Your task to perform on an android device: Go to location settings Image 0: 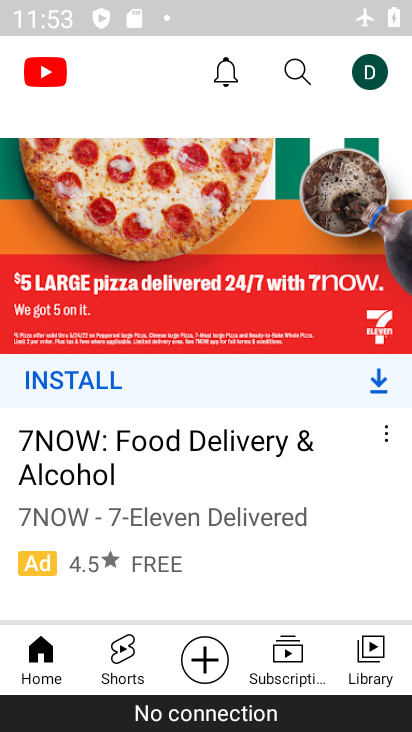
Step 0: press back button
Your task to perform on an android device: Go to location settings Image 1: 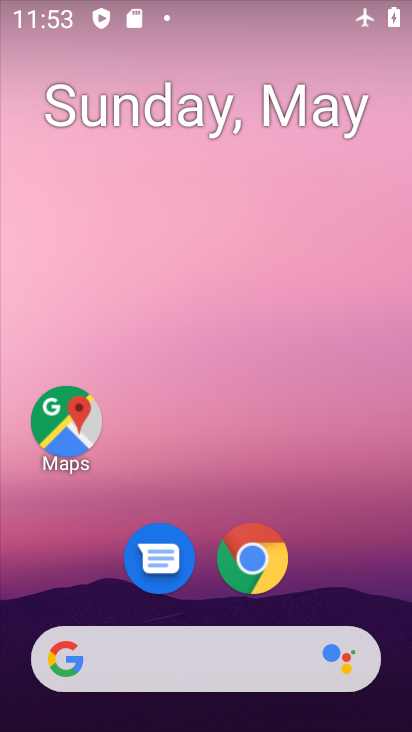
Step 1: drag from (346, 573) to (351, 149)
Your task to perform on an android device: Go to location settings Image 2: 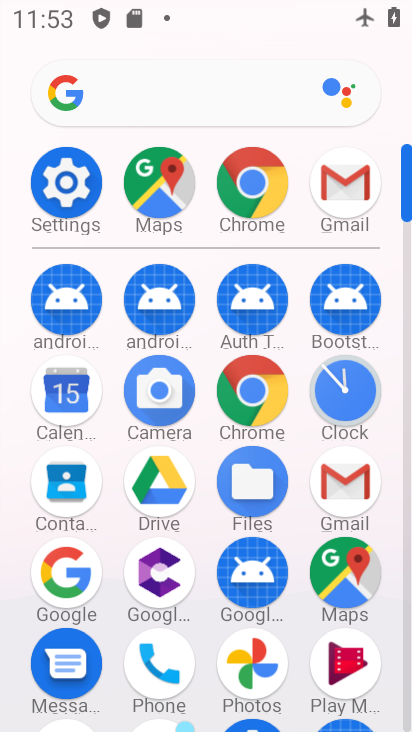
Step 2: click (77, 193)
Your task to perform on an android device: Go to location settings Image 3: 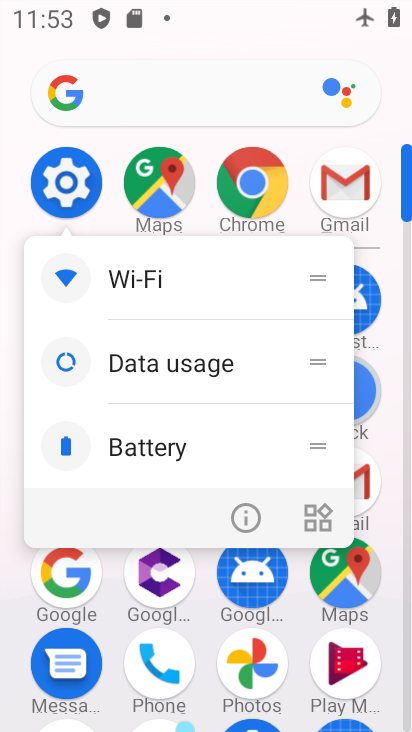
Step 3: click (77, 193)
Your task to perform on an android device: Go to location settings Image 4: 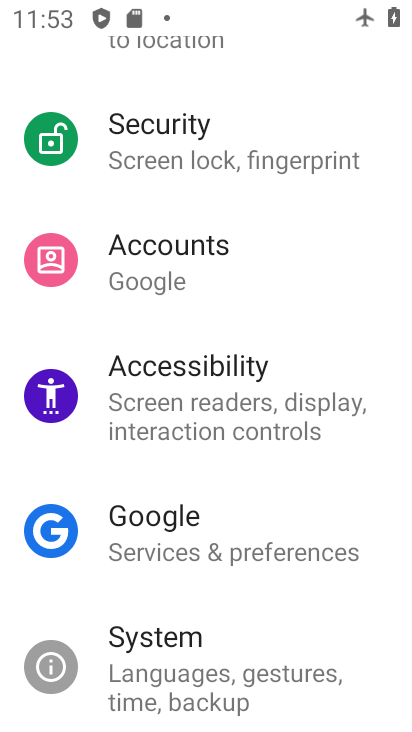
Step 4: drag from (366, 612) to (383, 354)
Your task to perform on an android device: Go to location settings Image 5: 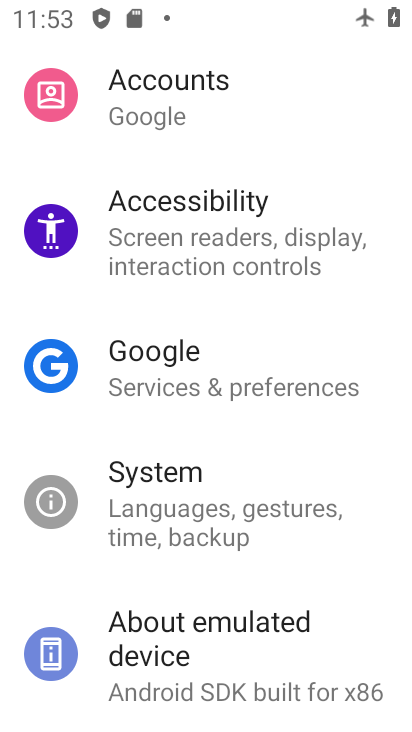
Step 5: drag from (375, 294) to (370, 459)
Your task to perform on an android device: Go to location settings Image 6: 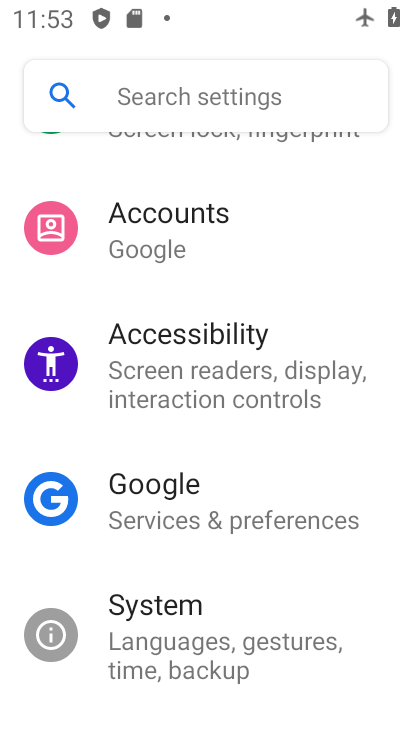
Step 6: drag from (369, 284) to (373, 433)
Your task to perform on an android device: Go to location settings Image 7: 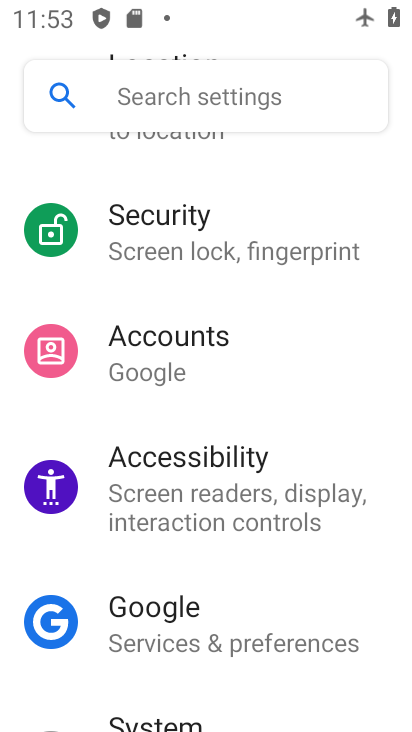
Step 7: drag from (375, 285) to (376, 414)
Your task to perform on an android device: Go to location settings Image 8: 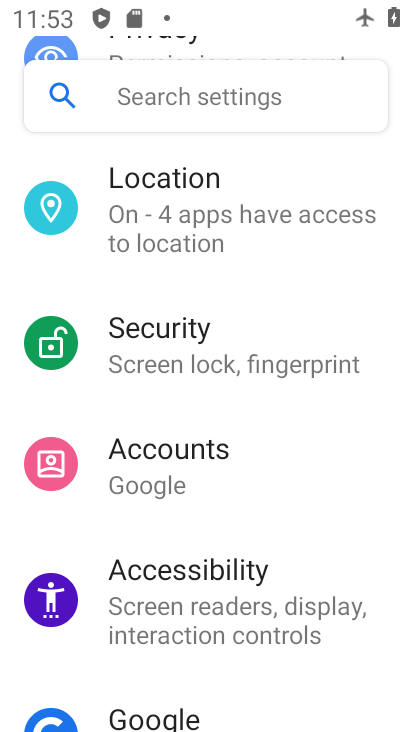
Step 8: drag from (373, 284) to (365, 411)
Your task to perform on an android device: Go to location settings Image 9: 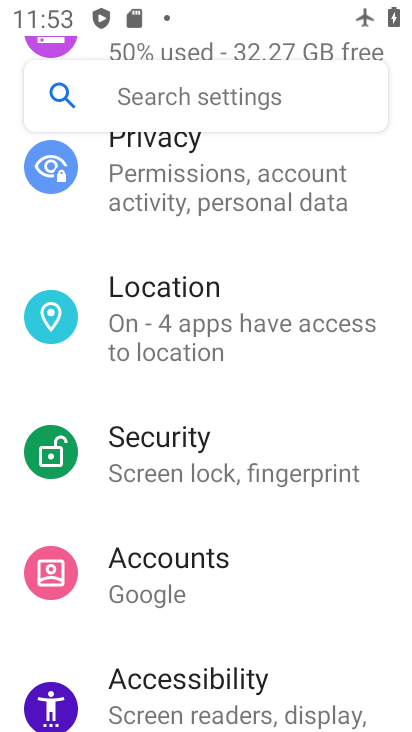
Step 9: click (303, 331)
Your task to perform on an android device: Go to location settings Image 10: 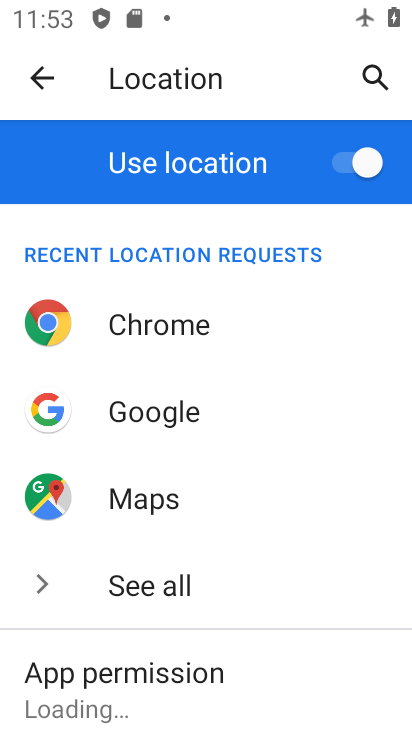
Step 10: task complete